Your task to perform on an android device: delete the emails in spam in the gmail app Image 0: 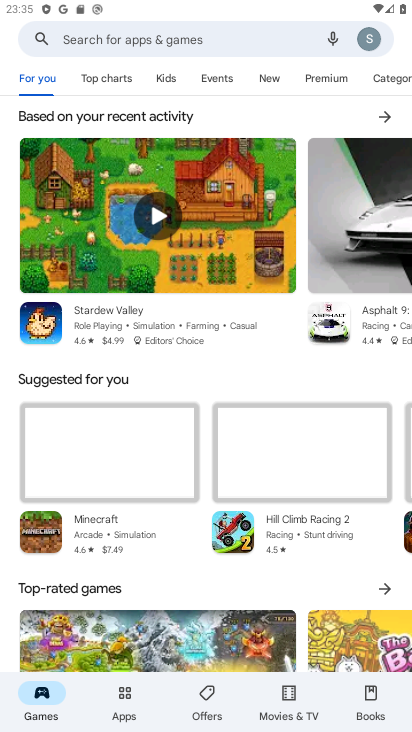
Step 0: press home button
Your task to perform on an android device: delete the emails in spam in the gmail app Image 1: 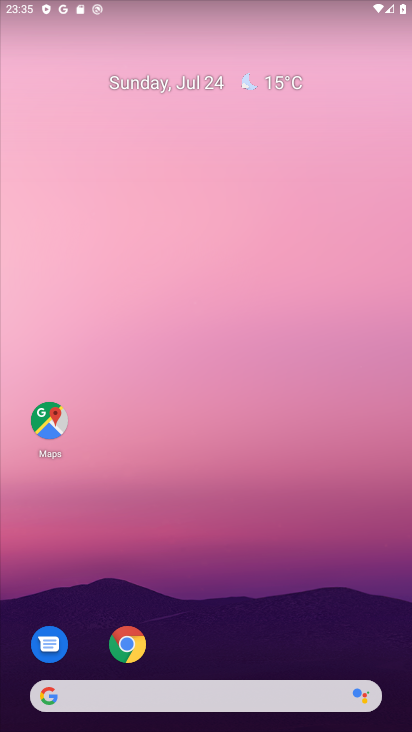
Step 1: drag from (203, 726) to (218, 350)
Your task to perform on an android device: delete the emails in spam in the gmail app Image 2: 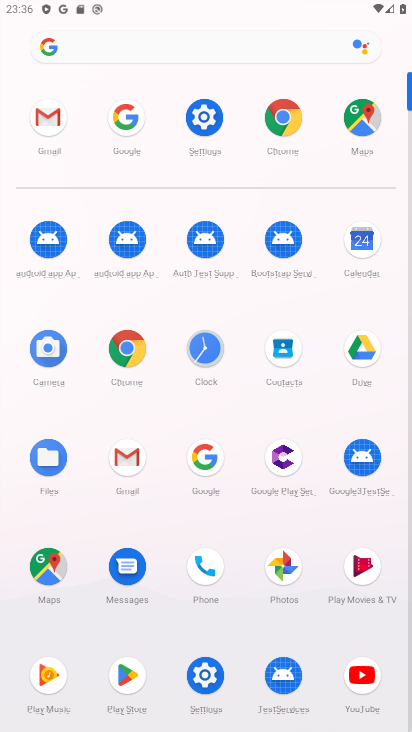
Step 2: click (129, 464)
Your task to perform on an android device: delete the emails in spam in the gmail app Image 3: 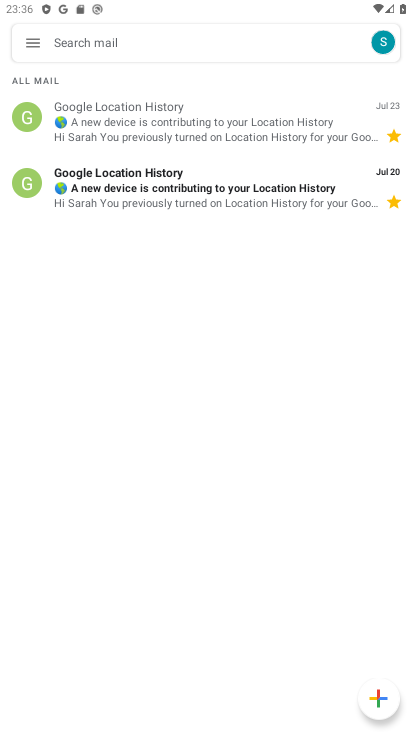
Step 3: click (33, 48)
Your task to perform on an android device: delete the emails in spam in the gmail app Image 4: 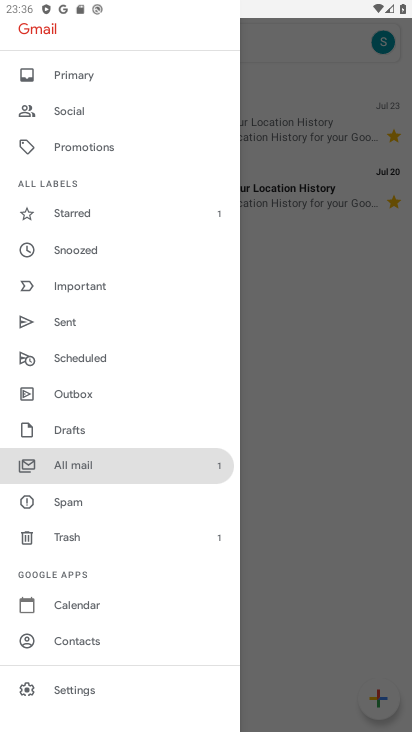
Step 4: click (58, 501)
Your task to perform on an android device: delete the emails in spam in the gmail app Image 5: 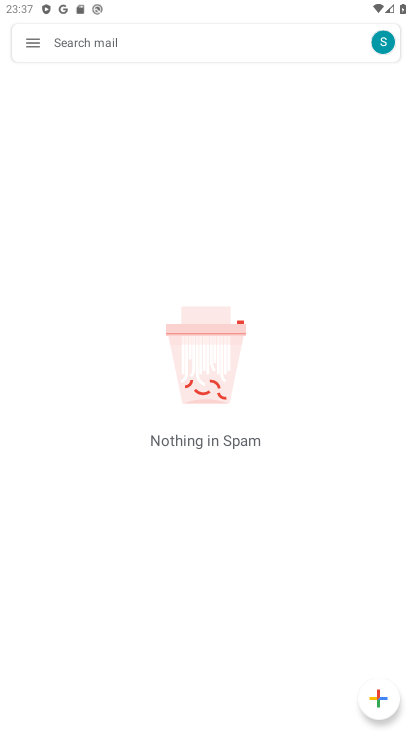
Step 5: task complete